Your task to perform on an android device: turn off improve location accuracy Image 0: 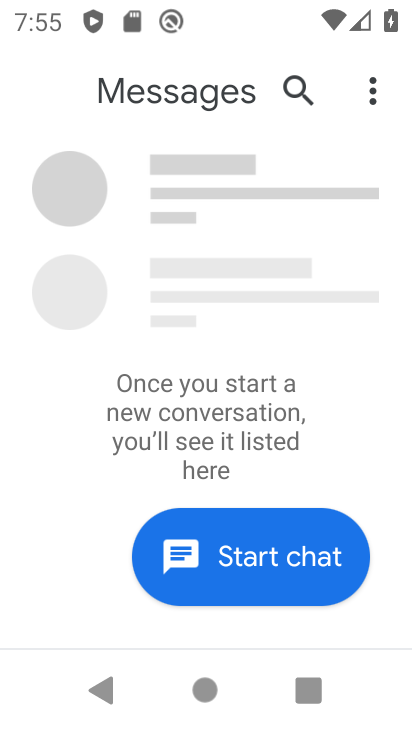
Step 0: press home button
Your task to perform on an android device: turn off improve location accuracy Image 1: 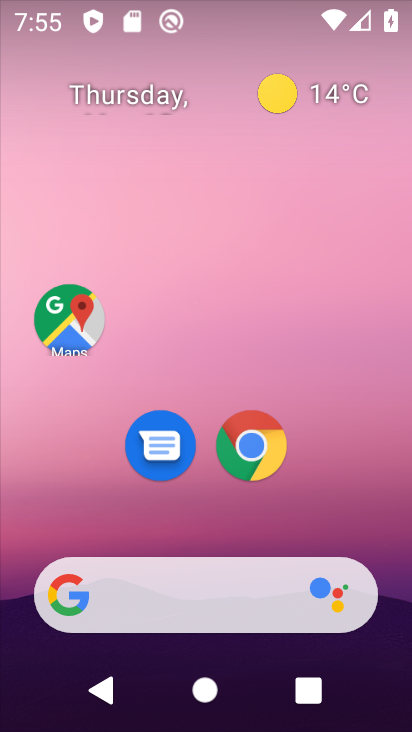
Step 1: drag from (232, 672) to (233, 81)
Your task to perform on an android device: turn off improve location accuracy Image 2: 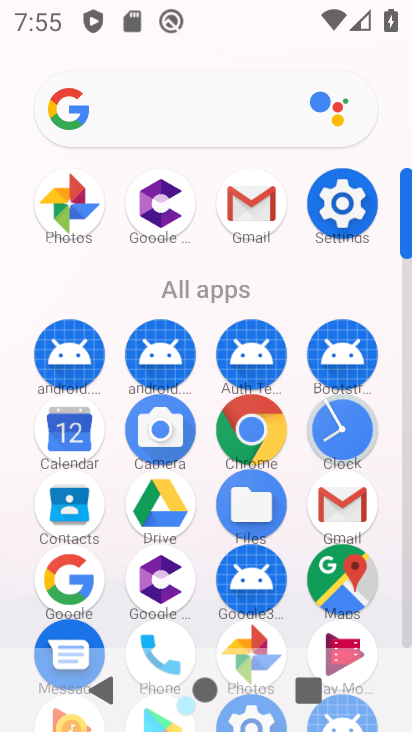
Step 2: click (347, 201)
Your task to perform on an android device: turn off improve location accuracy Image 3: 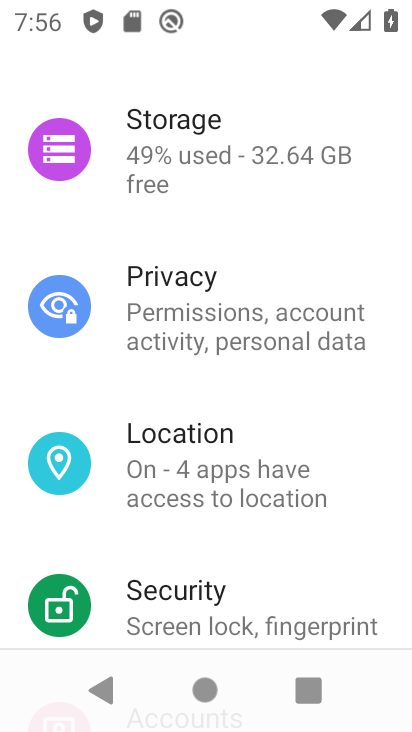
Step 3: drag from (187, 616) to (181, 352)
Your task to perform on an android device: turn off improve location accuracy Image 4: 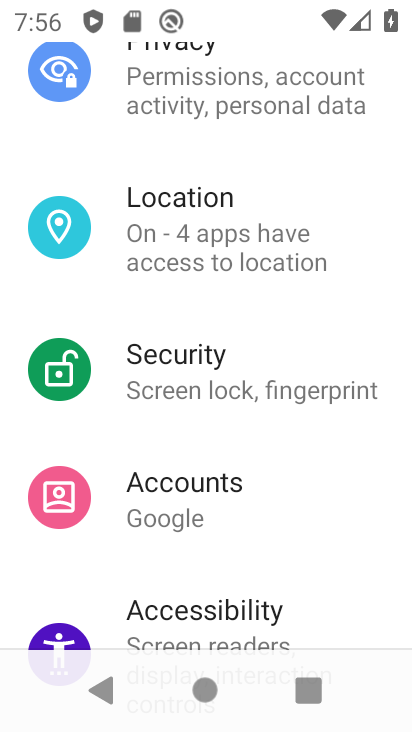
Step 4: click (182, 239)
Your task to perform on an android device: turn off improve location accuracy Image 5: 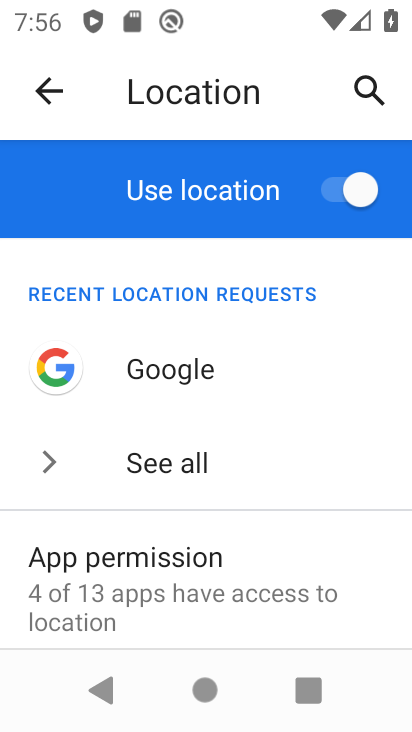
Step 5: drag from (194, 594) to (207, 281)
Your task to perform on an android device: turn off improve location accuracy Image 6: 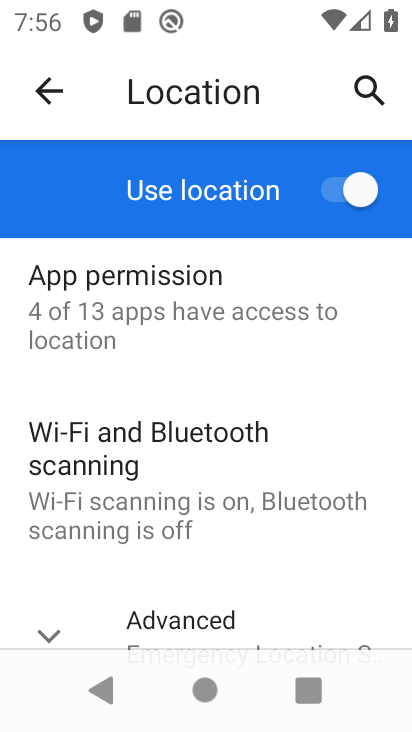
Step 6: drag from (190, 607) to (196, 253)
Your task to perform on an android device: turn off improve location accuracy Image 7: 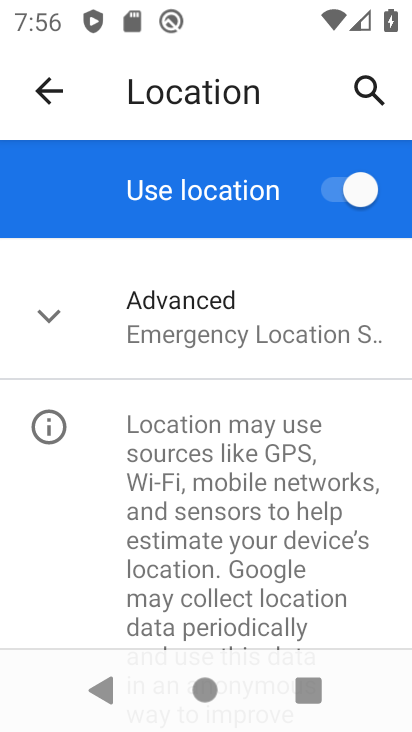
Step 7: click (167, 325)
Your task to perform on an android device: turn off improve location accuracy Image 8: 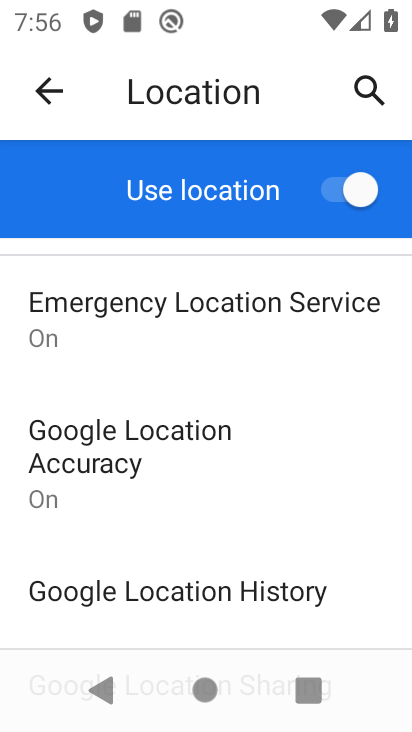
Step 8: click (141, 449)
Your task to perform on an android device: turn off improve location accuracy Image 9: 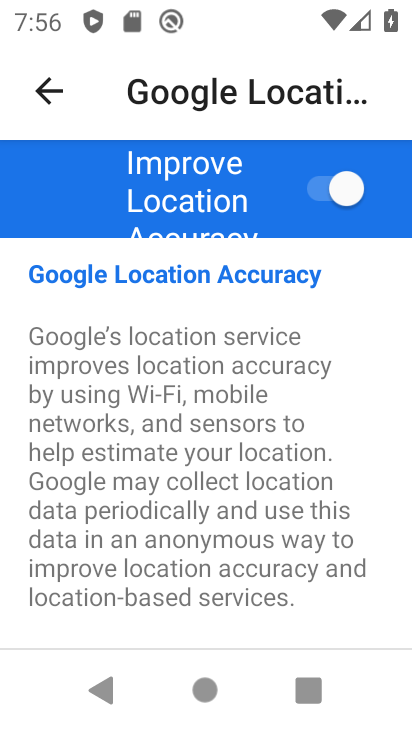
Step 9: click (319, 194)
Your task to perform on an android device: turn off improve location accuracy Image 10: 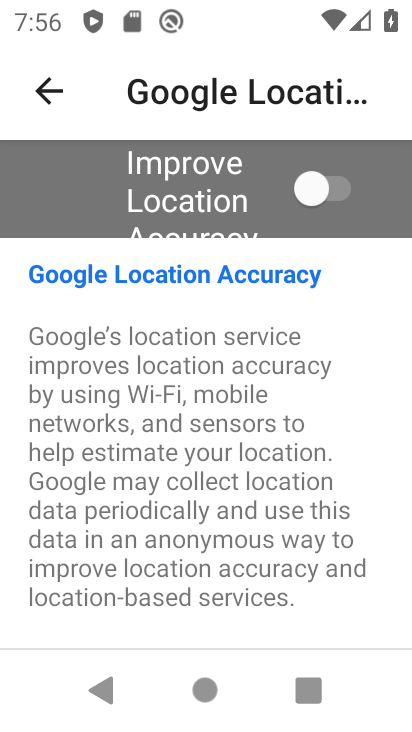
Step 10: task complete